Your task to perform on an android device: make emails show in primary in the gmail app Image 0: 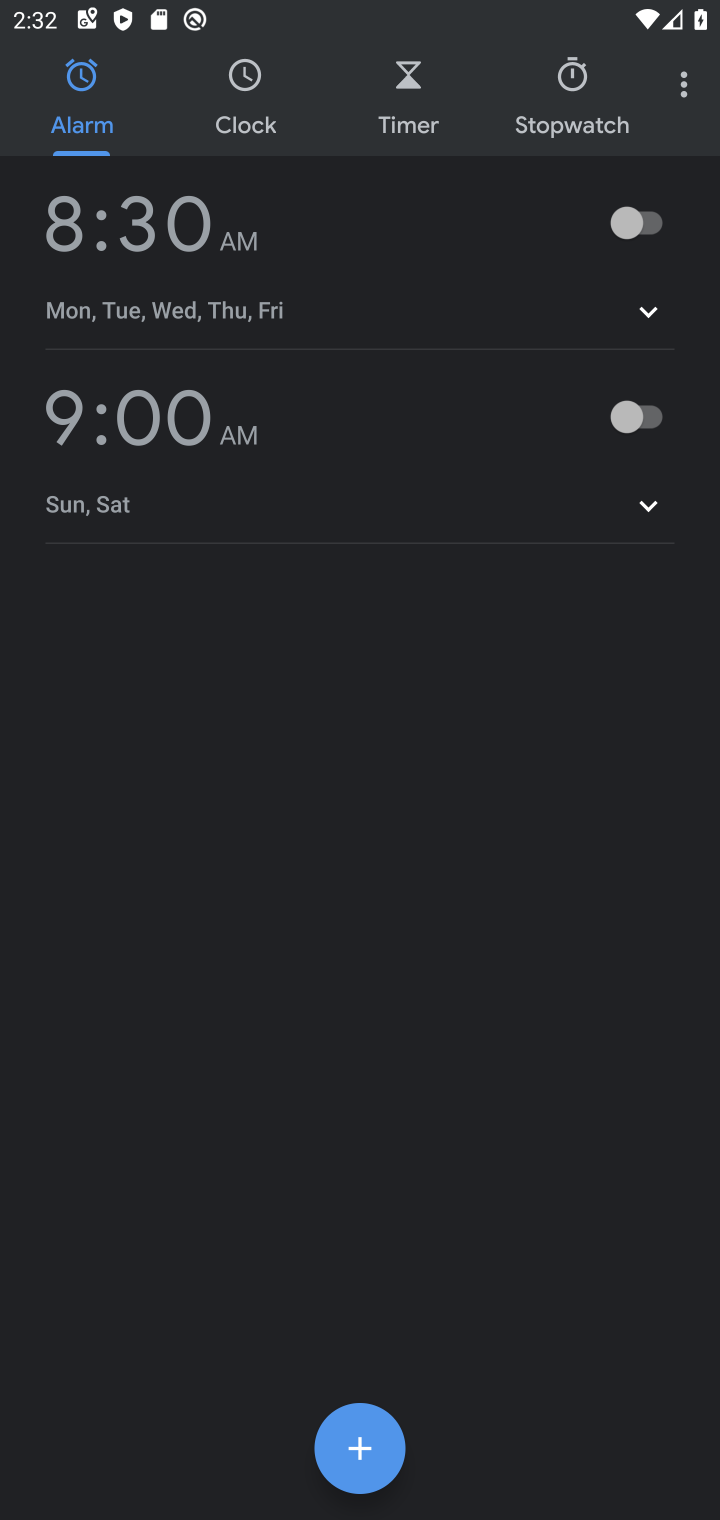
Step 0: press home button
Your task to perform on an android device: make emails show in primary in the gmail app Image 1: 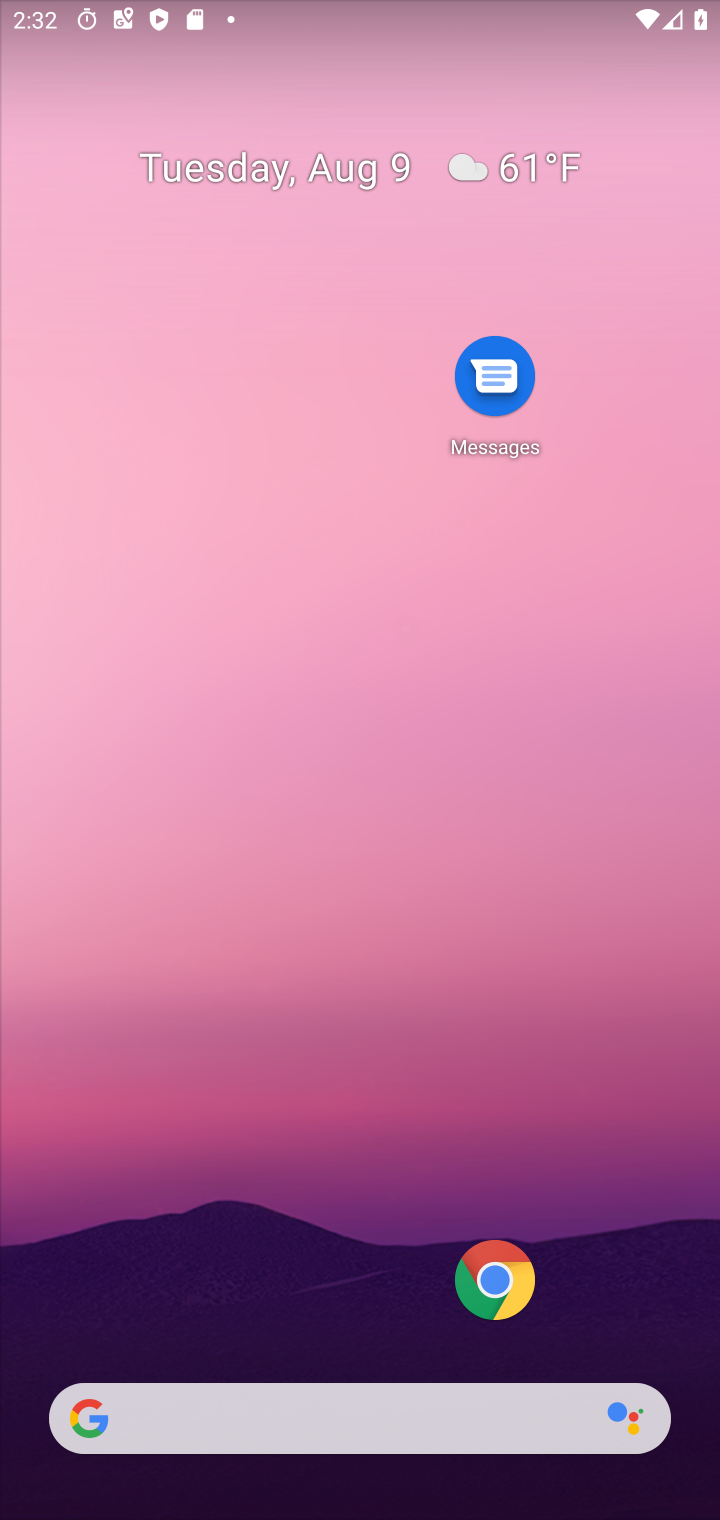
Step 1: drag from (215, 1408) to (419, 178)
Your task to perform on an android device: make emails show in primary in the gmail app Image 2: 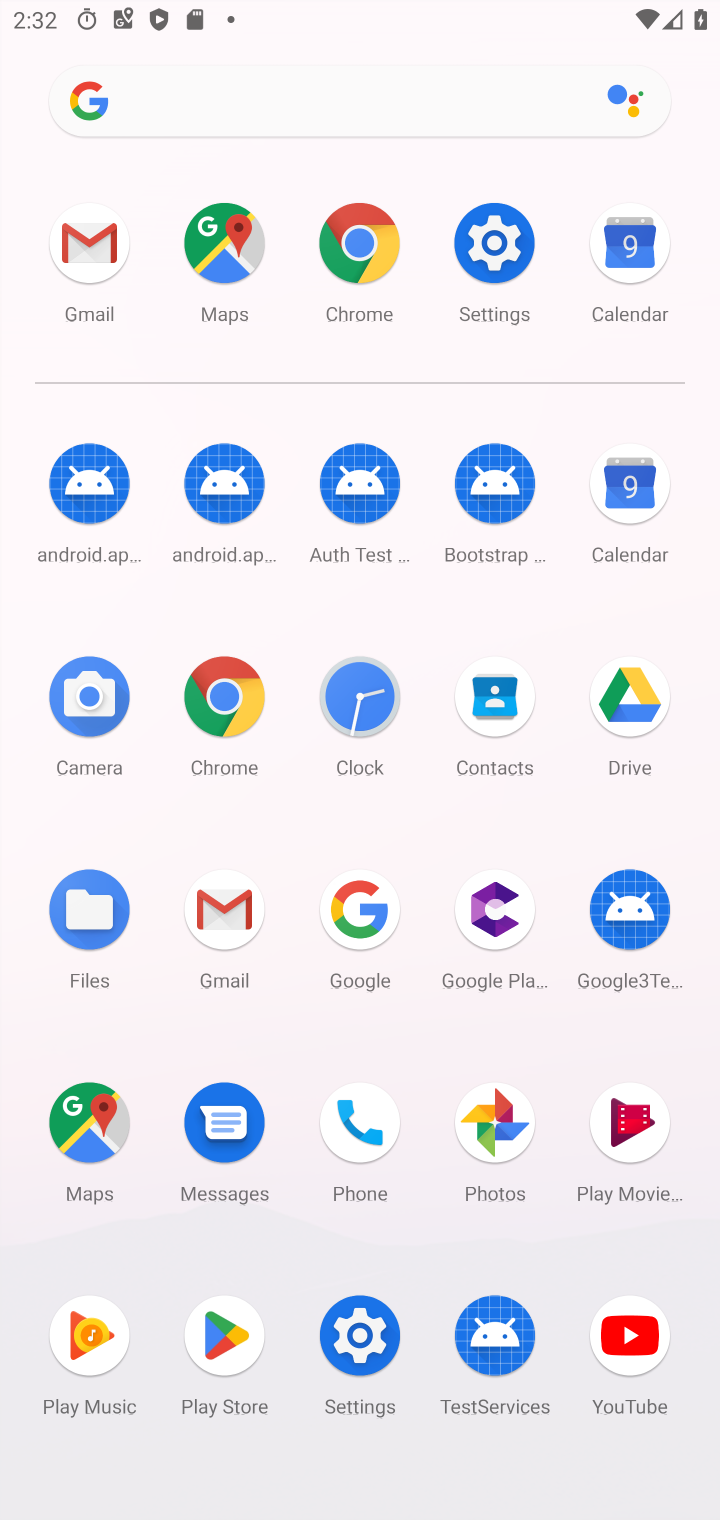
Step 2: click (87, 263)
Your task to perform on an android device: make emails show in primary in the gmail app Image 3: 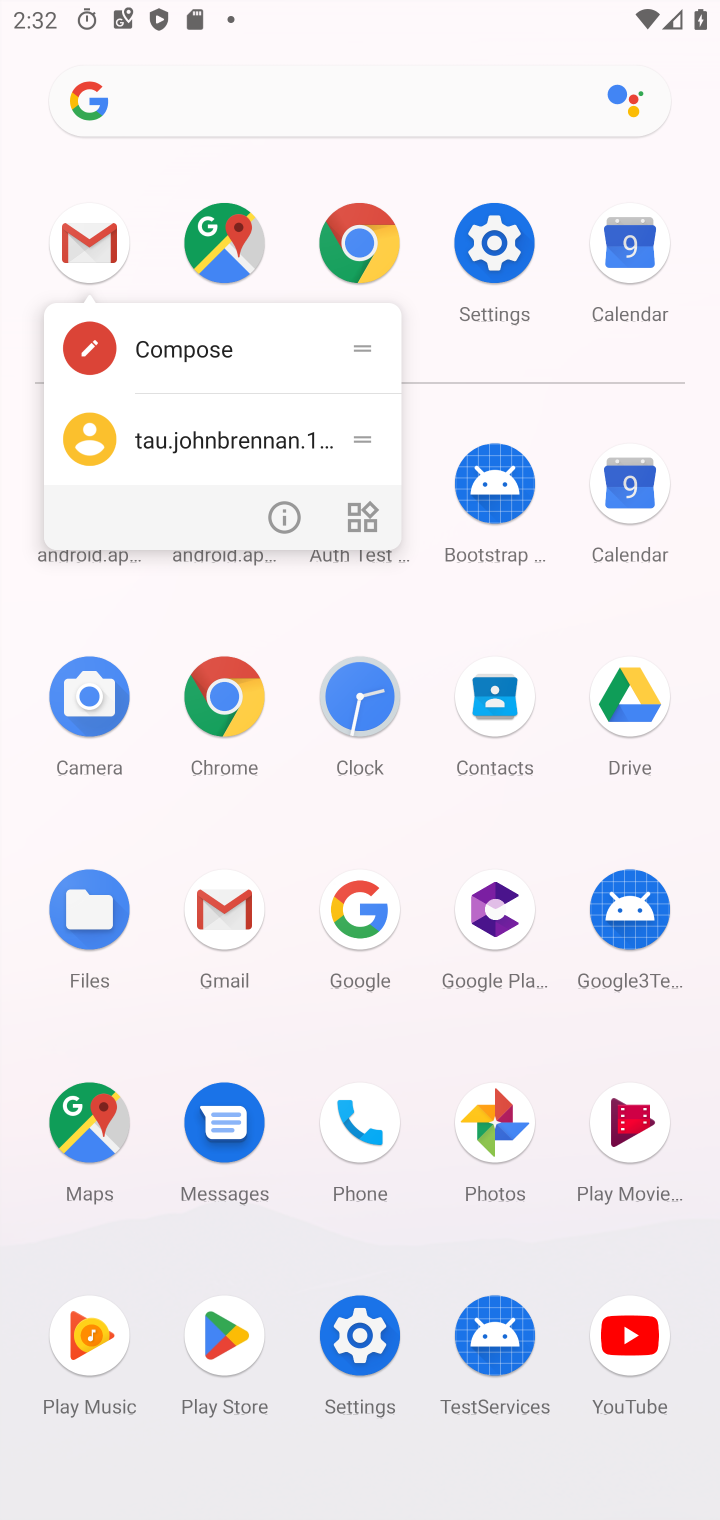
Step 3: click (76, 243)
Your task to perform on an android device: make emails show in primary in the gmail app Image 4: 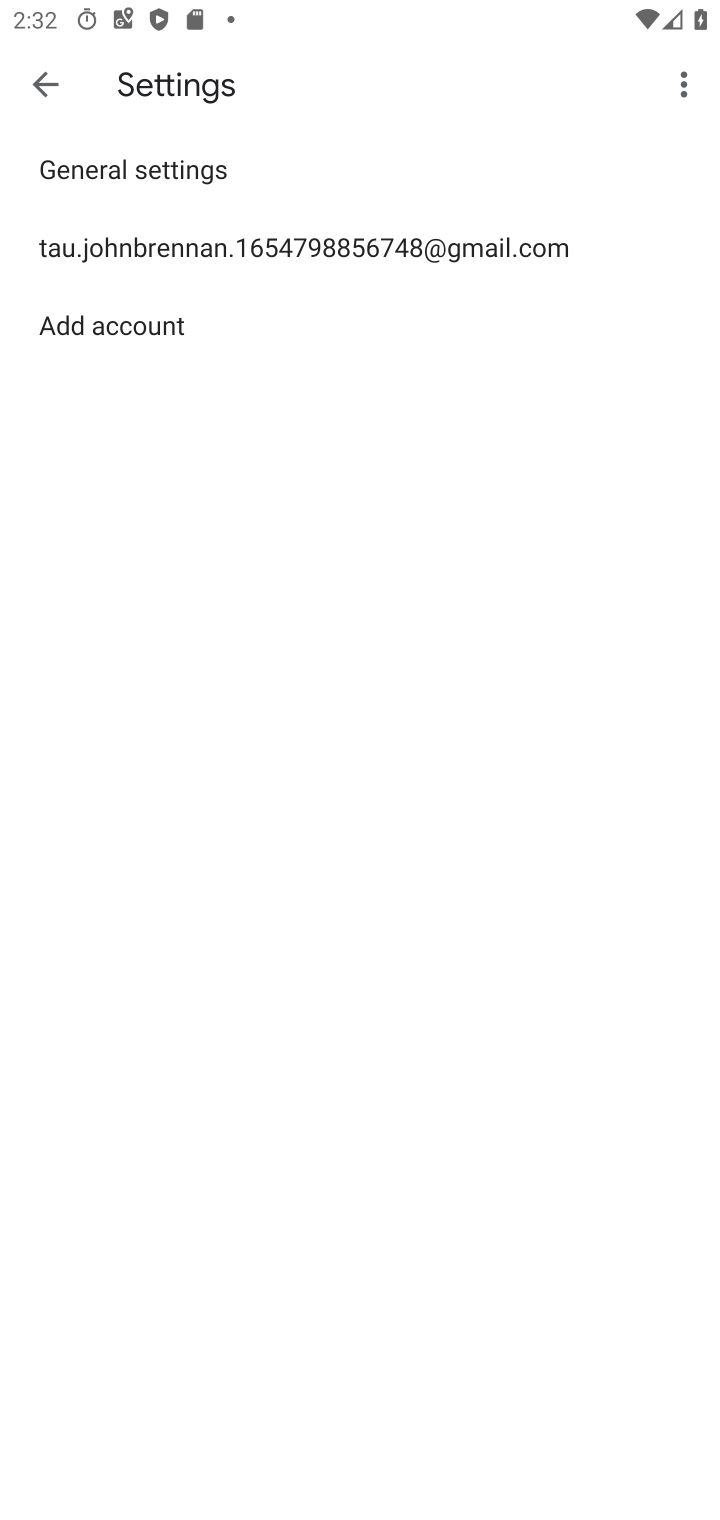
Step 4: click (280, 231)
Your task to perform on an android device: make emails show in primary in the gmail app Image 5: 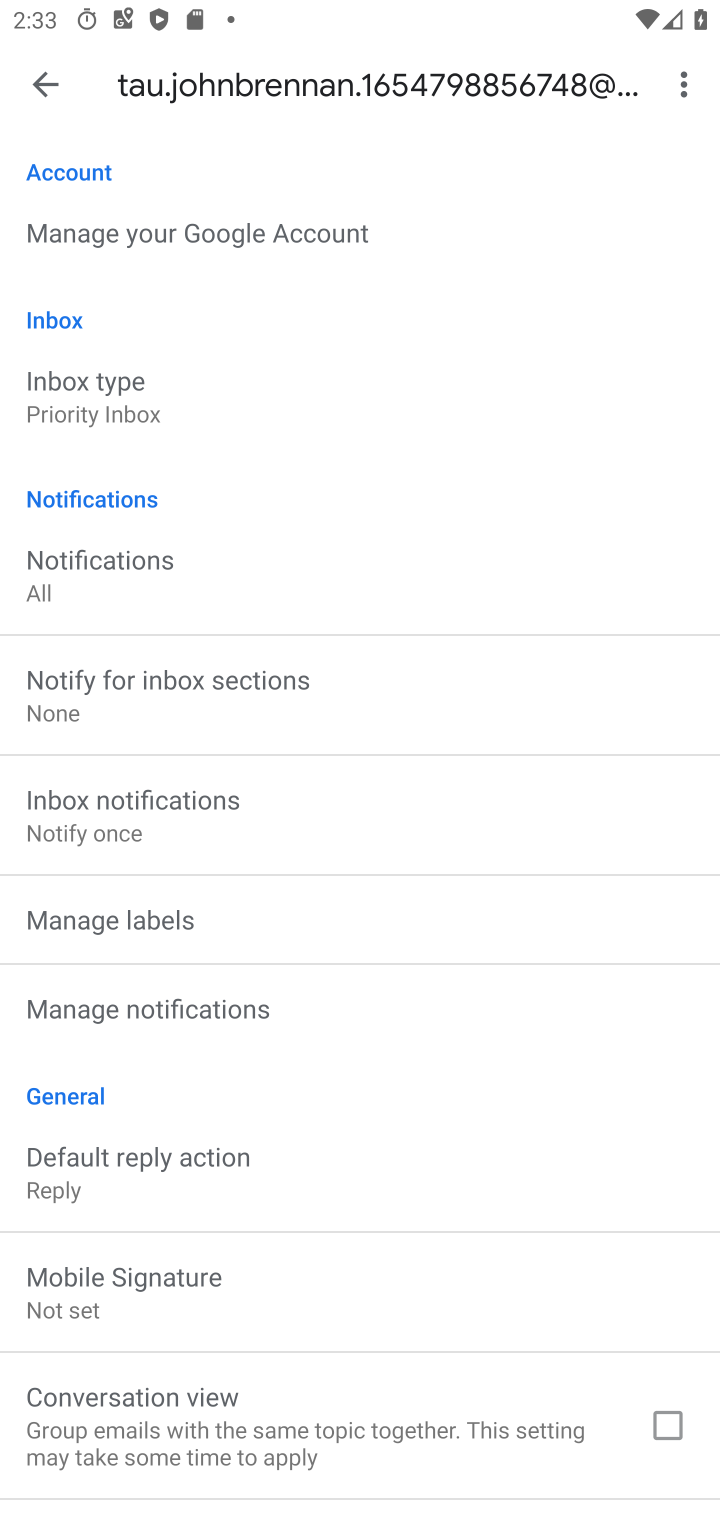
Step 5: task complete